Your task to perform on an android device: Go to settings Image 0: 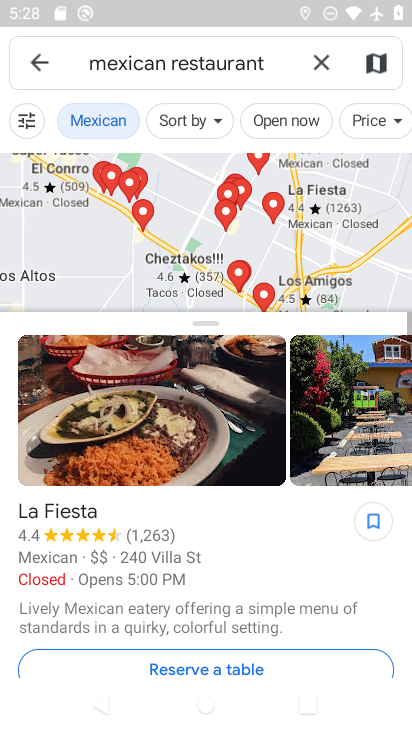
Step 0: drag from (288, 572) to (238, 149)
Your task to perform on an android device: Go to settings Image 1: 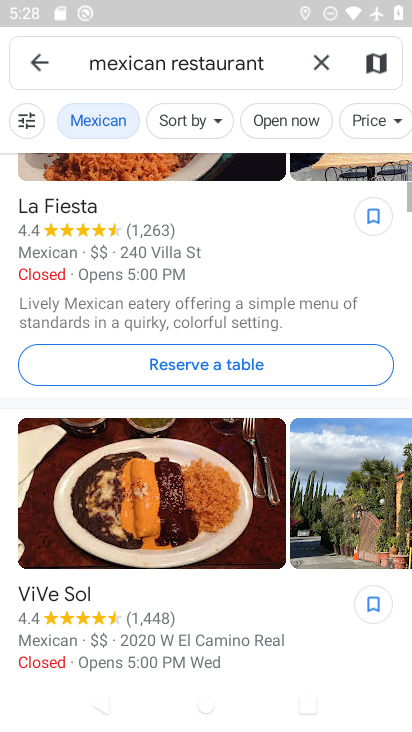
Step 1: press home button
Your task to perform on an android device: Go to settings Image 2: 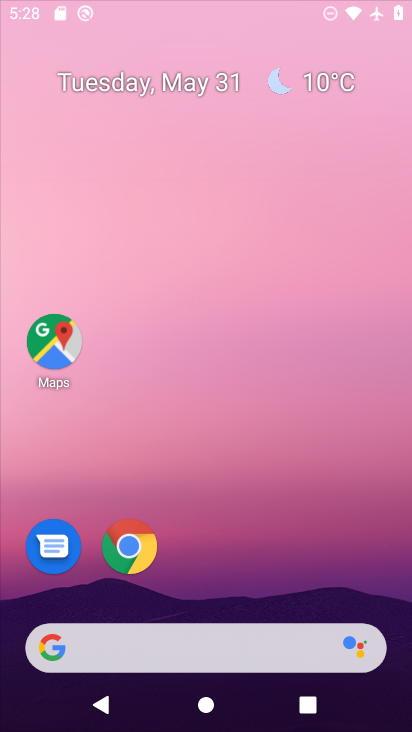
Step 2: drag from (270, 528) to (189, 25)
Your task to perform on an android device: Go to settings Image 3: 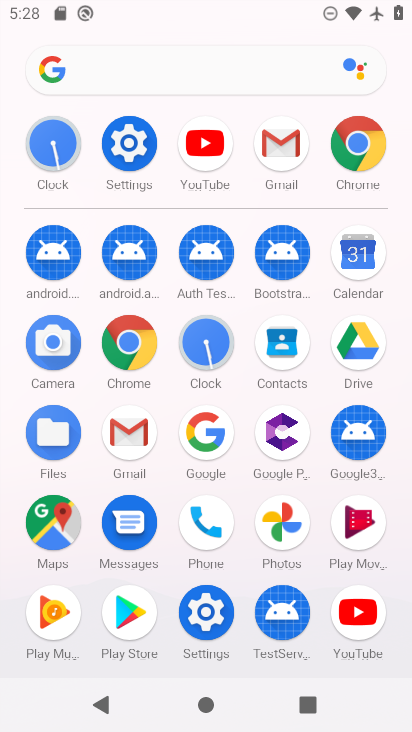
Step 3: click (127, 146)
Your task to perform on an android device: Go to settings Image 4: 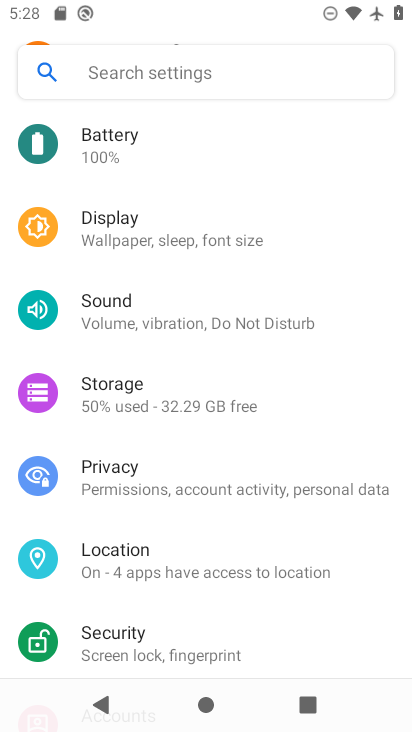
Step 4: task complete